Your task to perform on an android device: open sync settings in chrome Image 0: 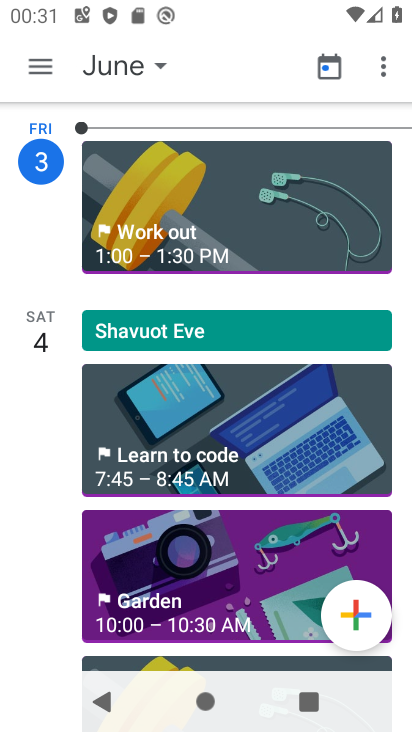
Step 0: press home button
Your task to perform on an android device: open sync settings in chrome Image 1: 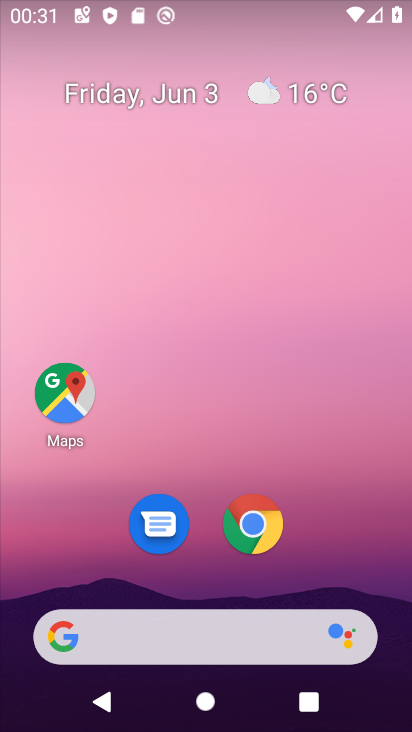
Step 1: click (260, 520)
Your task to perform on an android device: open sync settings in chrome Image 2: 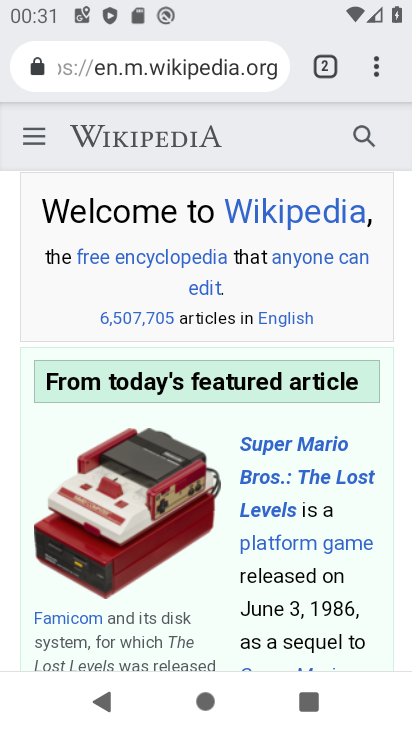
Step 2: click (378, 59)
Your task to perform on an android device: open sync settings in chrome Image 3: 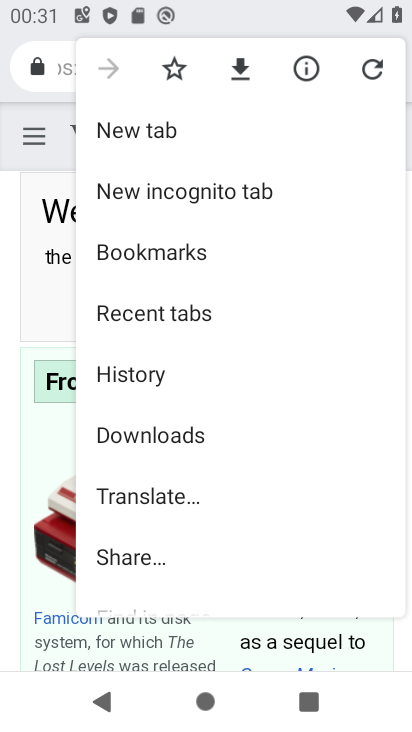
Step 3: drag from (252, 470) to (231, 140)
Your task to perform on an android device: open sync settings in chrome Image 4: 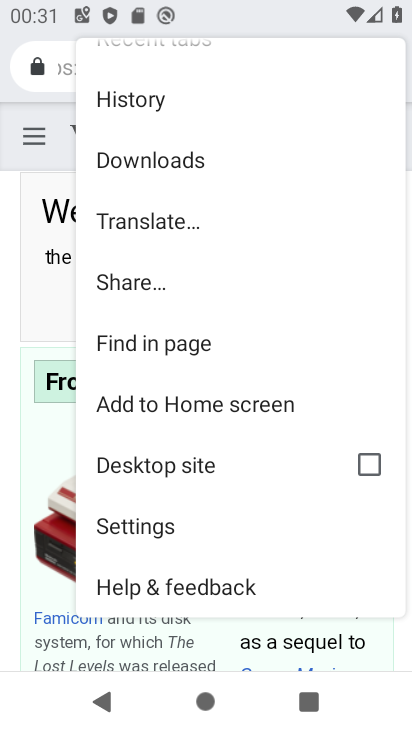
Step 4: click (179, 519)
Your task to perform on an android device: open sync settings in chrome Image 5: 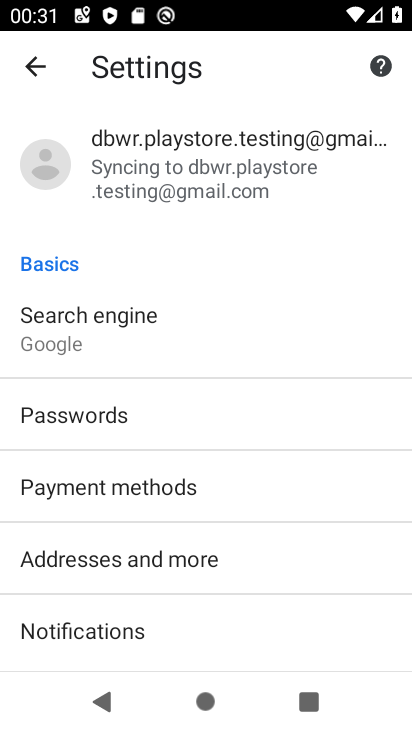
Step 5: click (240, 166)
Your task to perform on an android device: open sync settings in chrome Image 6: 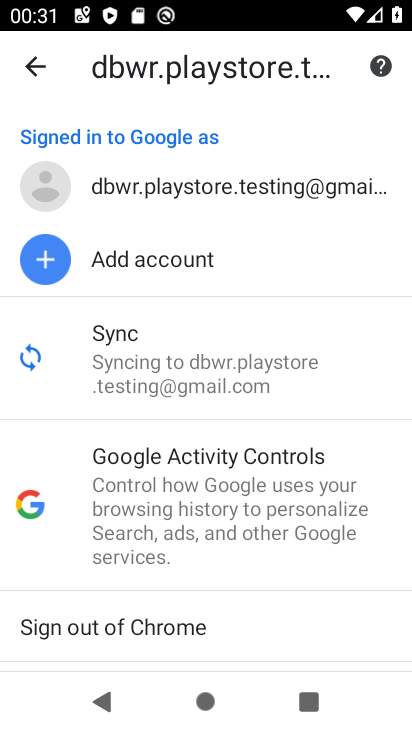
Step 6: click (188, 351)
Your task to perform on an android device: open sync settings in chrome Image 7: 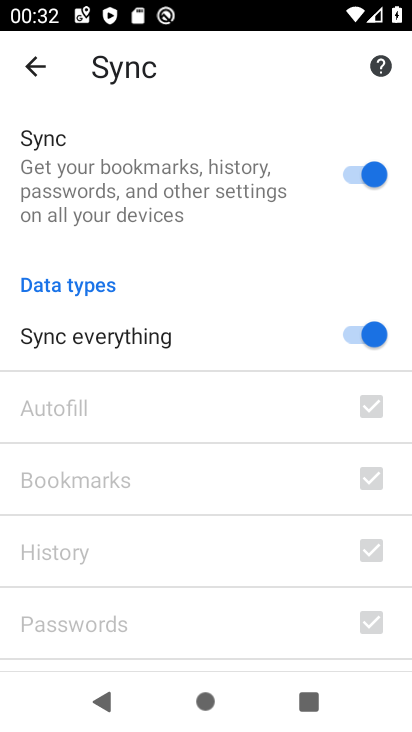
Step 7: task complete